Your task to perform on an android device: change text size in settings app Image 0: 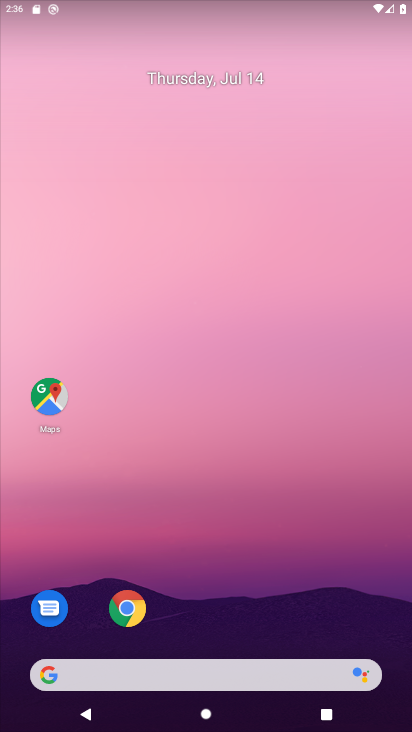
Step 0: click (235, 582)
Your task to perform on an android device: change text size in settings app Image 1: 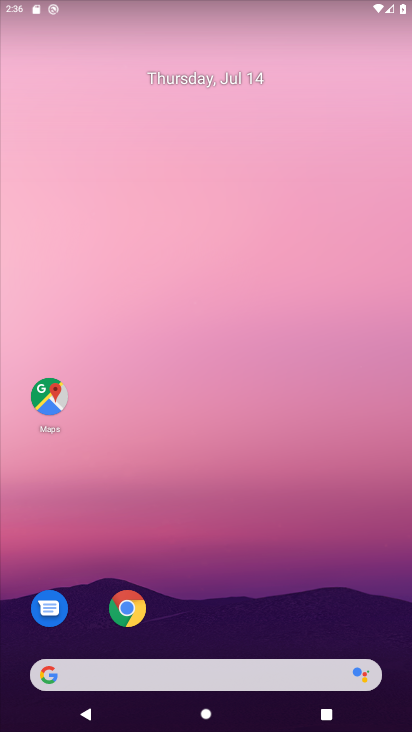
Step 1: drag from (333, 618) to (381, 355)
Your task to perform on an android device: change text size in settings app Image 2: 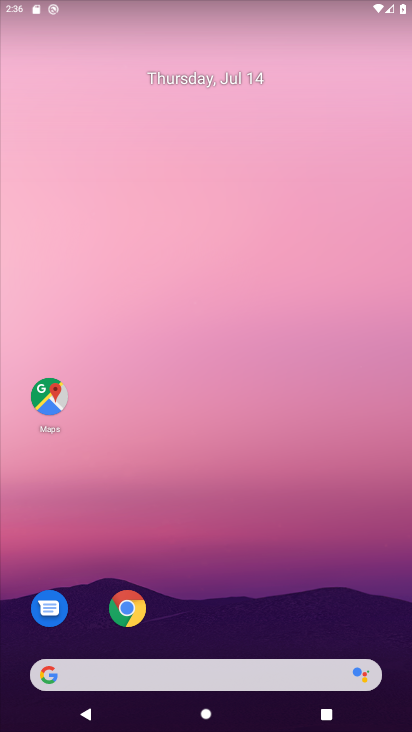
Step 2: drag from (245, 524) to (235, 30)
Your task to perform on an android device: change text size in settings app Image 3: 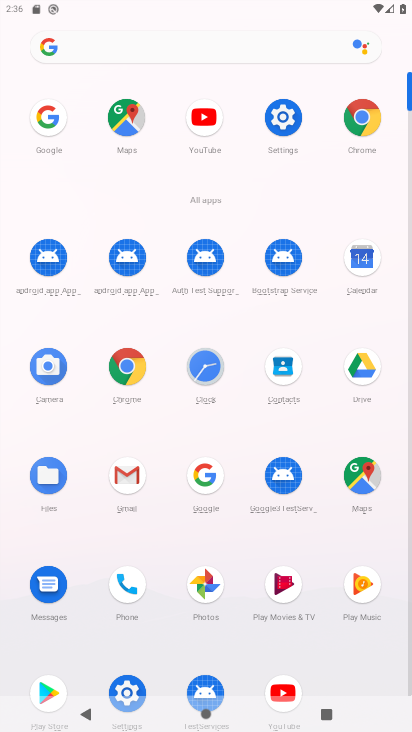
Step 3: click (133, 702)
Your task to perform on an android device: change text size in settings app Image 4: 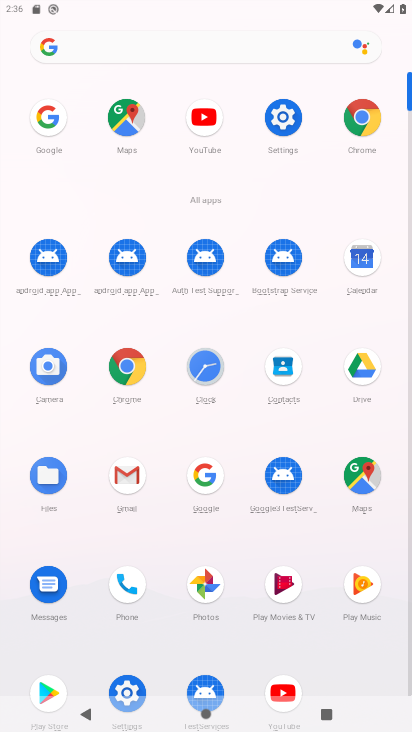
Step 4: click (123, 679)
Your task to perform on an android device: change text size in settings app Image 5: 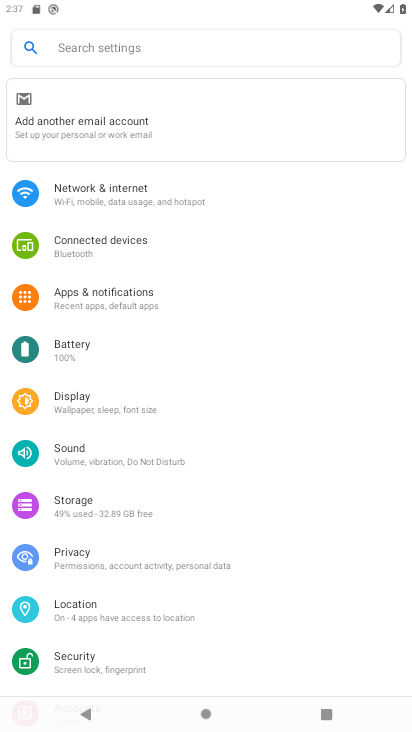
Step 5: click (124, 410)
Your task to perform on an android device: change text size in settings app Image 6: 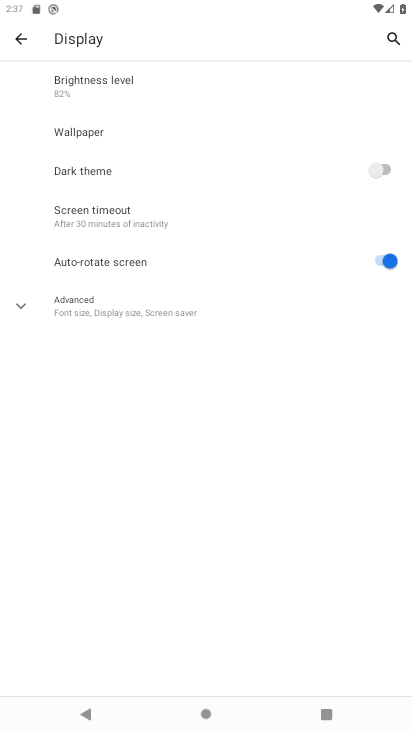
Step 6: click (119, 306)
Your task to perform on an android device: change text size in settings app Image 7: 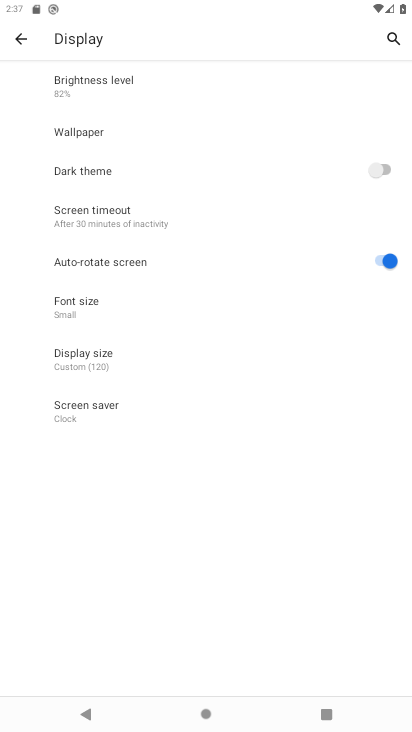
Step 7: click (119, 306)
Your task to perform on an android device: change text size in settings app Image 8: 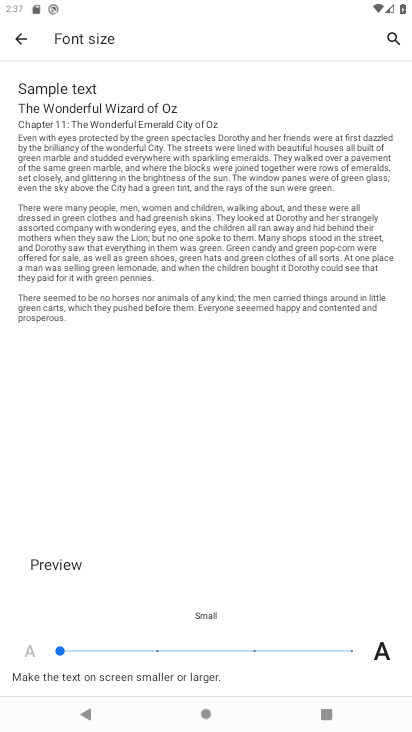
Step 8: click (383, 653)
Your task to perform on an android device: change text size in settings app Image 9: 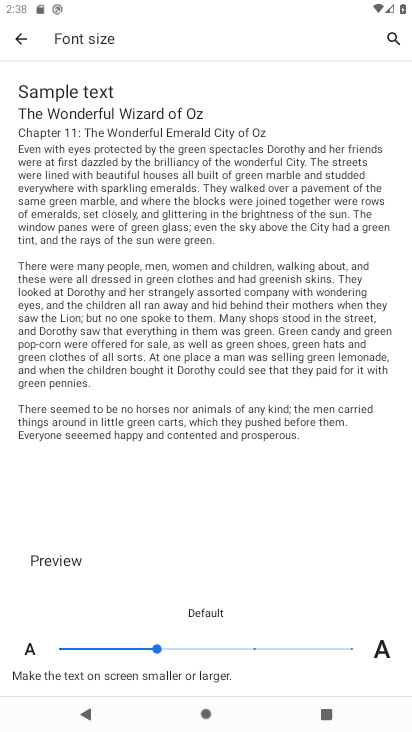
Step 9: click (372, 655)
Your task to perform on an android device: change text size in settings app Image 10: 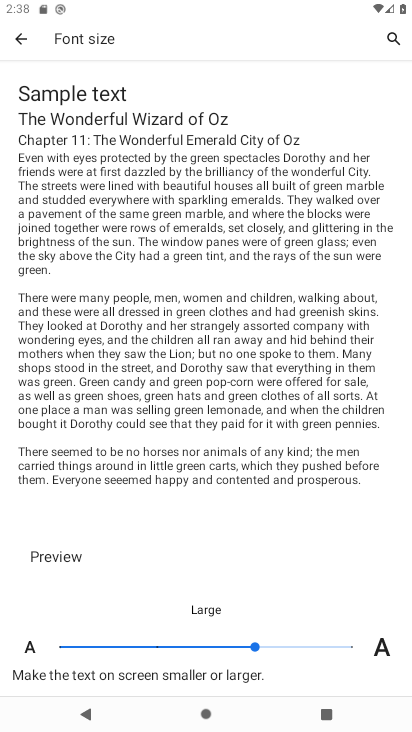
Step 10: task complete